Your task to perform on an android device: turn on bluetooth scan Image 0: 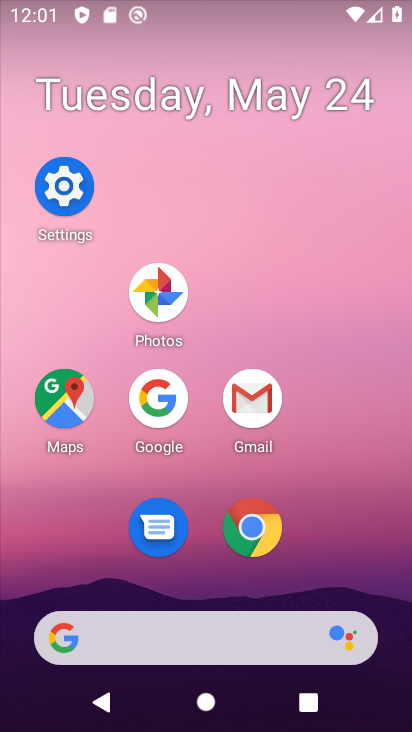
Step 0: click (90, 186)
Your task to perform on an android device: turn on bluetooth scan Image 1: 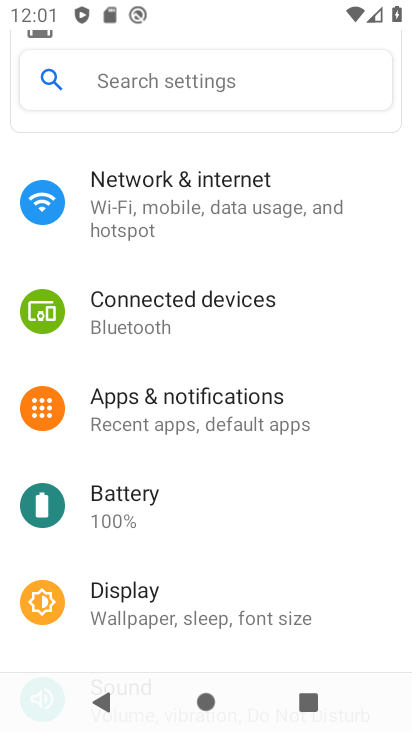
Step 1: drag from (252, 587) to (266, 185)
Your task to perform on an android device: turn on bluetooth scan Image 2: 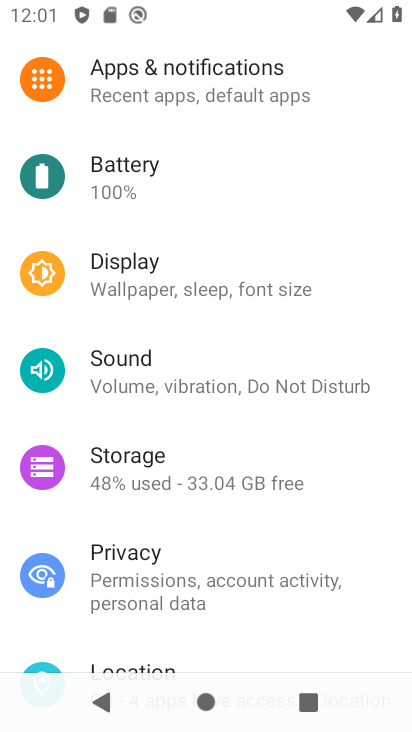
Step 2: drag from (248, 524) to (281, 310)
Your task to perform on an android device: turn on bluetooth scan Image 3: 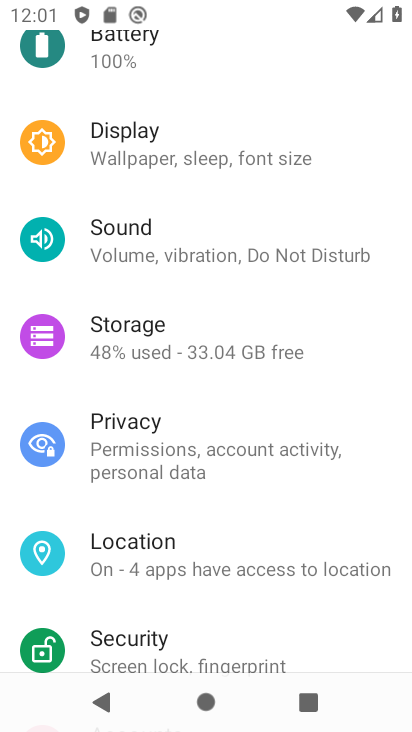
Step 3: click (257, 552)
Your task to perform on an android device: turn on bluetooth scan Image 4: 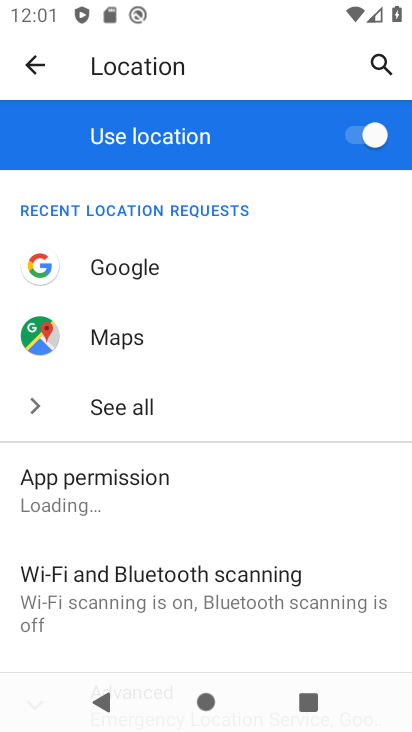
Step 4: click (251, 575)
Your task to perform on an android device: turn on bluetooth scan Image 5: 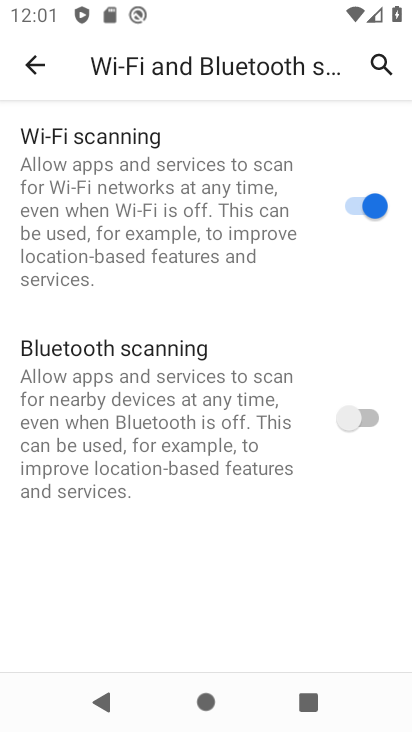
Step 5: click (340, 437)
Your task to perform on an android device: turn on bluetooth scan Image 6: 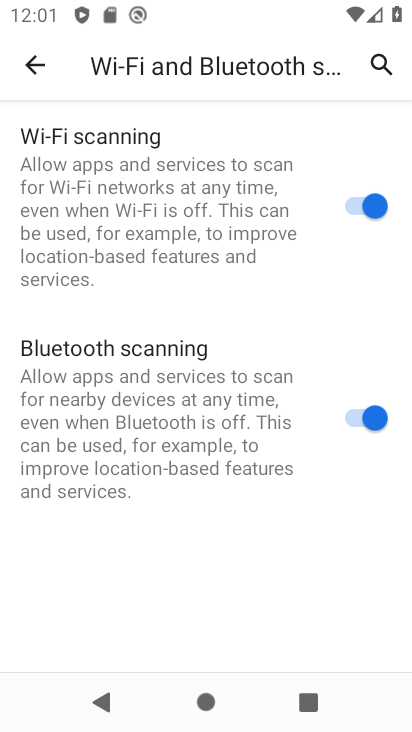
Step 6: task complete